Your task to perform on an android device: Open notification settings Image 0: 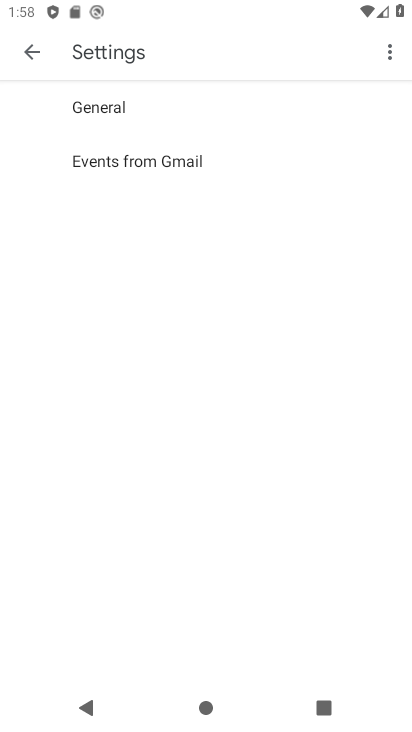
Step 0: press home button
Your task to perform on an android device: Open notification settings Image 1: 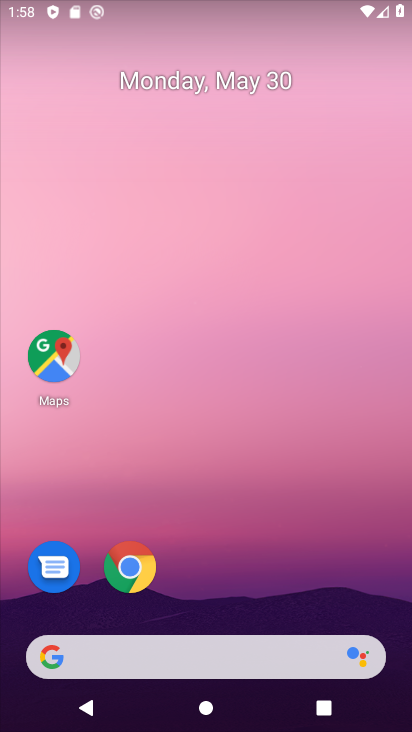
Step 1: drag from (200, 614) to (222, 234)
Your task to perform on an android device: Open notification settings Image 2: 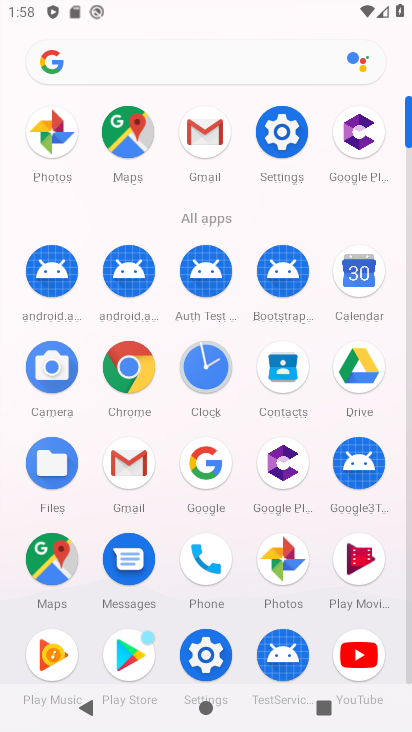
Step 2: click (296, 148)
Your task to perform on an android device: Open notification settings Image 3: 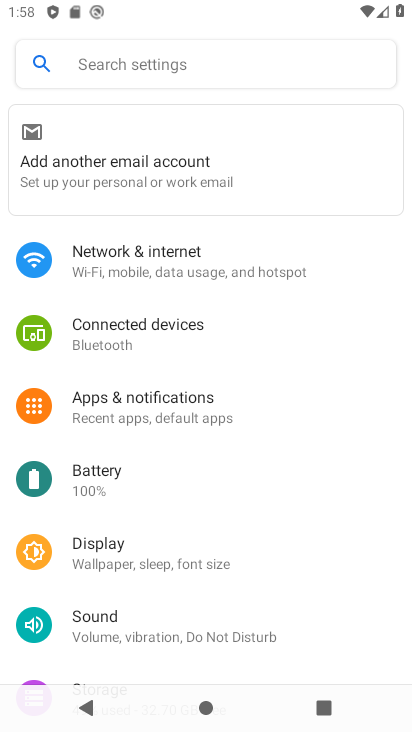
Step 3: click (184, 421)
Your task to perform on an android device: Open notification settings Image 4: 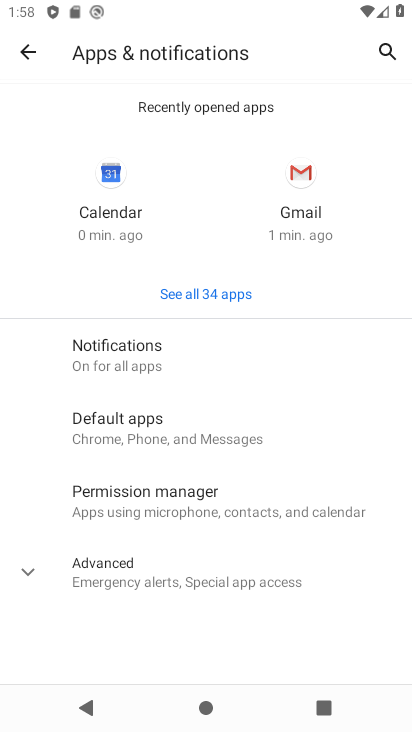
Step 4: click (155, 360)
Your task to perform on an android device: Open notification settings Image 5: 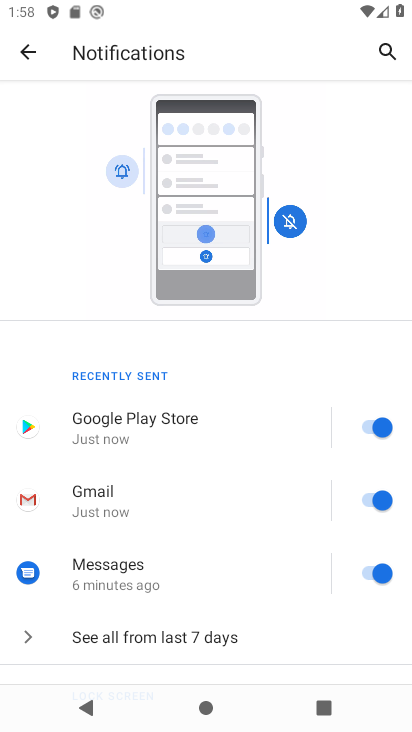
Step 5: task complete